Your task to perform on an android device: What's on my calendar tomorrow? Image 0: 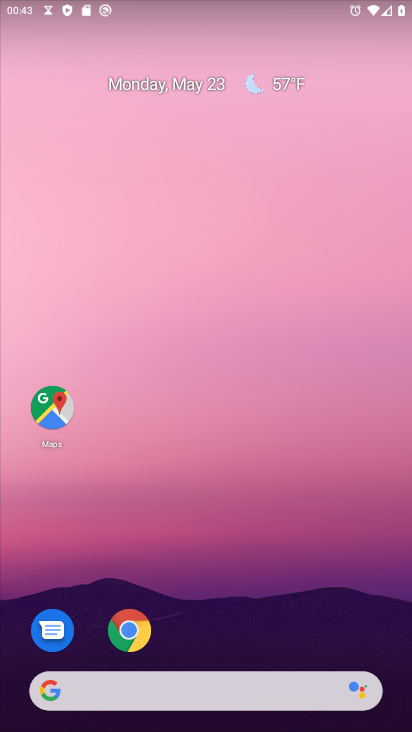
Step 0: click (172, 81)
Your task to perform on an android device: What's on my calendar tomorrow? Image 1: 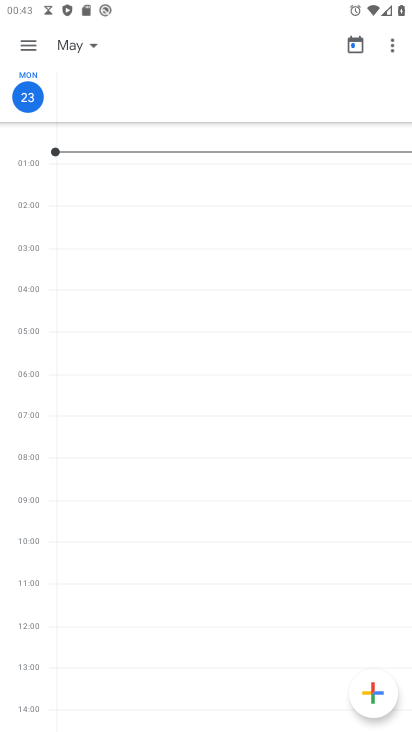
Step 1: click (78, 49)
Your task to perform on an android device: What's on my calendar tomorrow? Image 2: 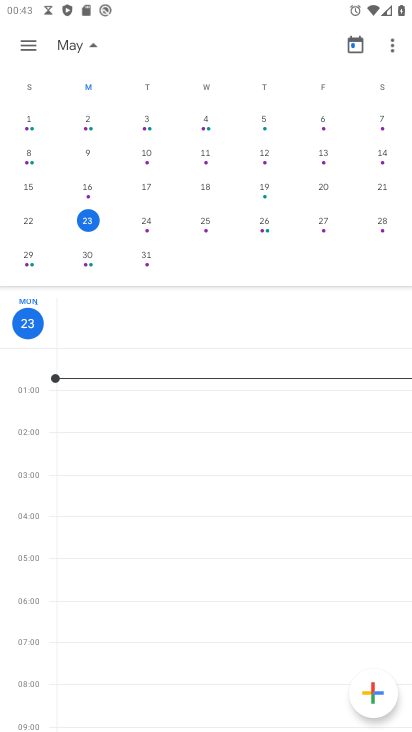
Step 2: click (146, 216)
Your task to perform on an android device: What's on my calendar tomorrow? Image 3: 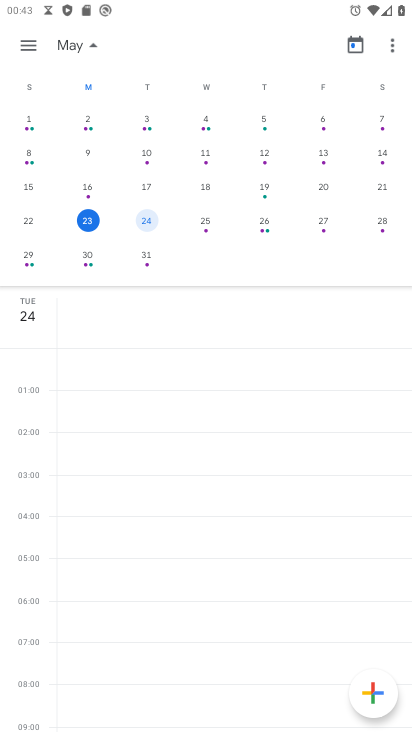
Step 3: task complete